Your task to perform on an android device: Open Reddit.com Image 0: 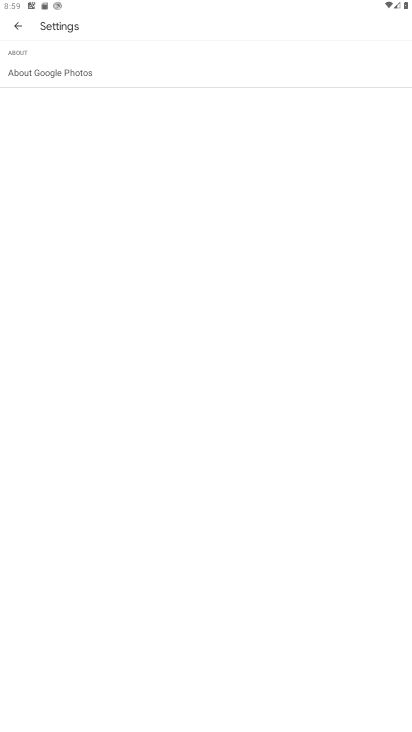
Step 0: press home button
Your task to perform on an android device: Open Reddit.com Image 1: 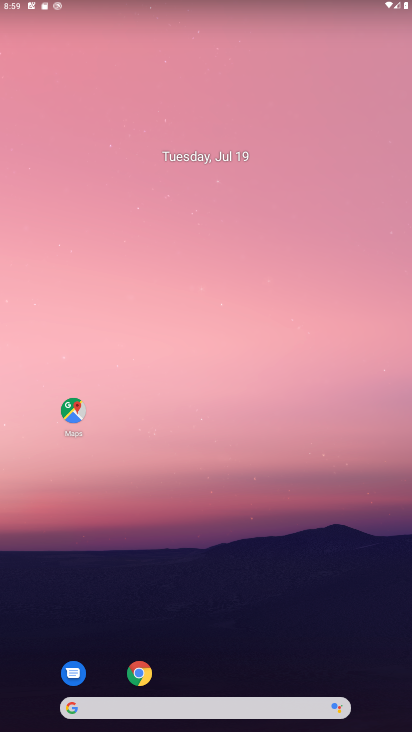
Step 1: click (138, 674)
Your task to perform on an android device: Open Reddit.com Image 2: 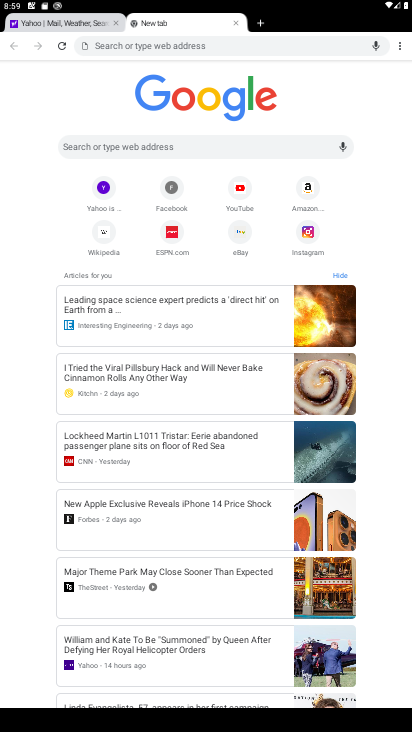
Step 2: click (135, 140)
Your task to perform on an android device: Open Reddit.com Image 3: 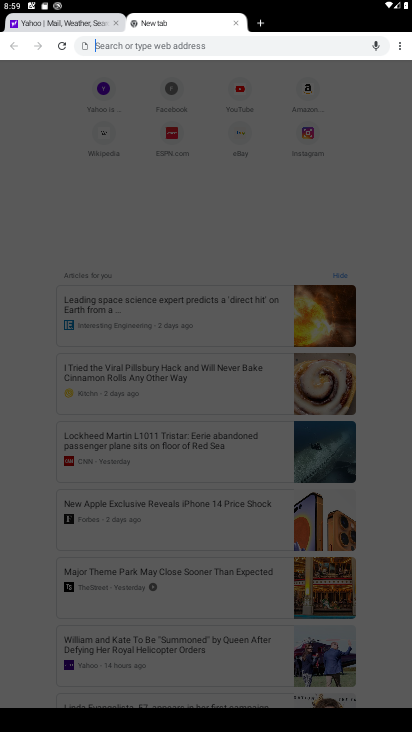
Step 3: type "Reddit.com"
Your task to perform on an android device: Open Reddit.com Image 4: 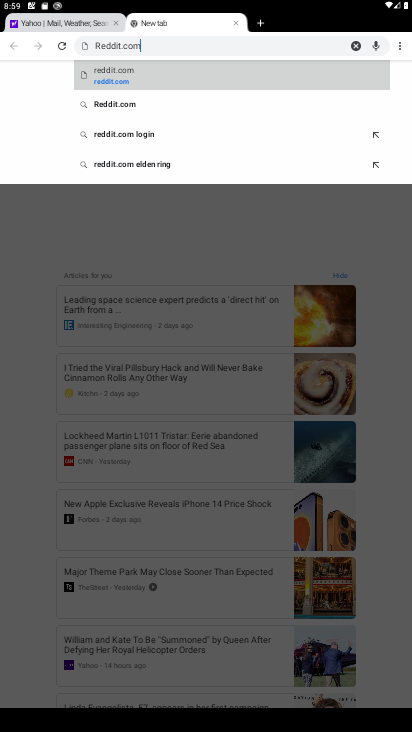
Step 4: click (111, 68)
Your task to perform on an android device: Open Reddit.com Image 5: 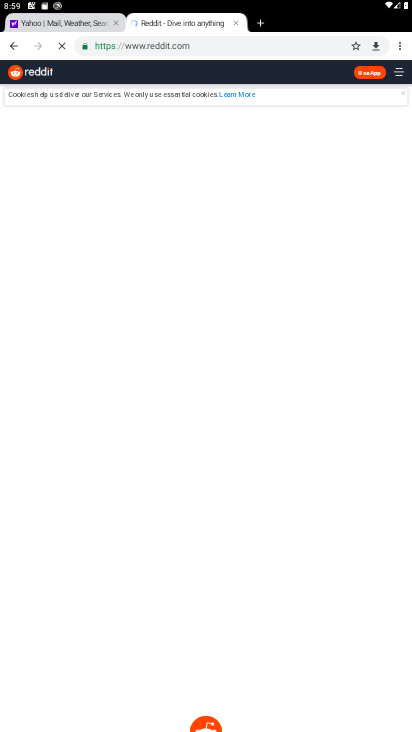
Step 5: task complete